Your task to perform on an android device: turn on notifications settings in the gmail app Image 0: 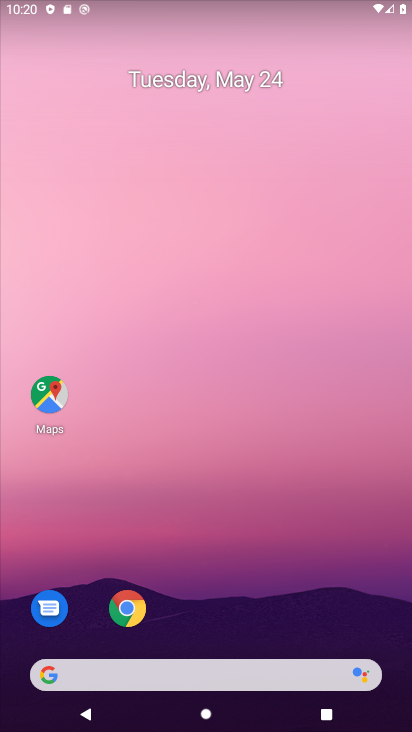
Step 0: drag from (376, 622) to (337, 7)
Your task to perform on an android device: turn on notifications settings in the gmail app Image 1: 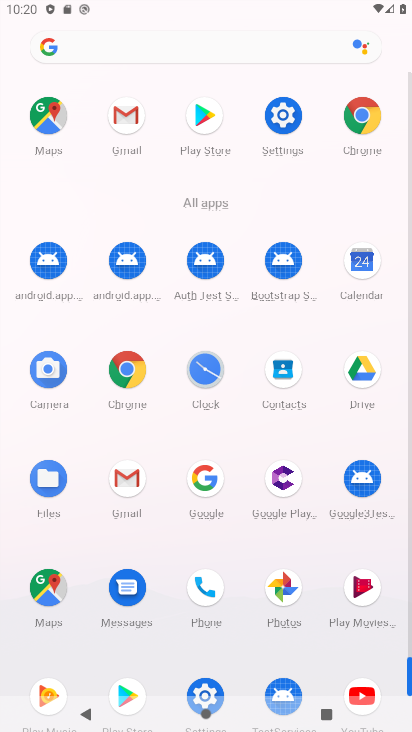
Step 1: click (410, 645)
Your task to perform on an android device: turn on notifications settings in the gmail app Image 2: 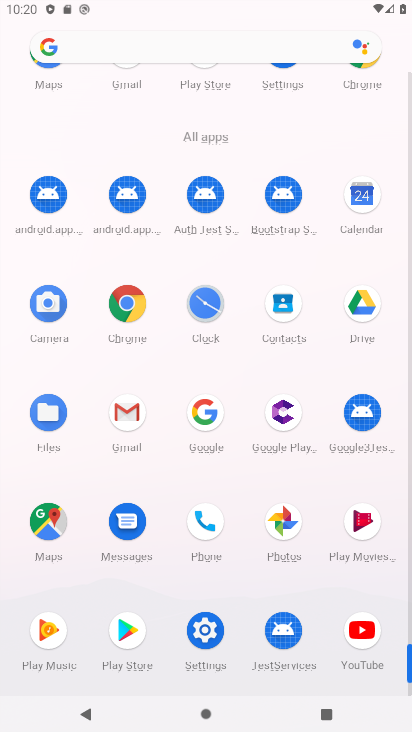
Step 2: click (123, 411)
Your task to perform on an android device: turn on notifications settings in the gmail app Image 3: 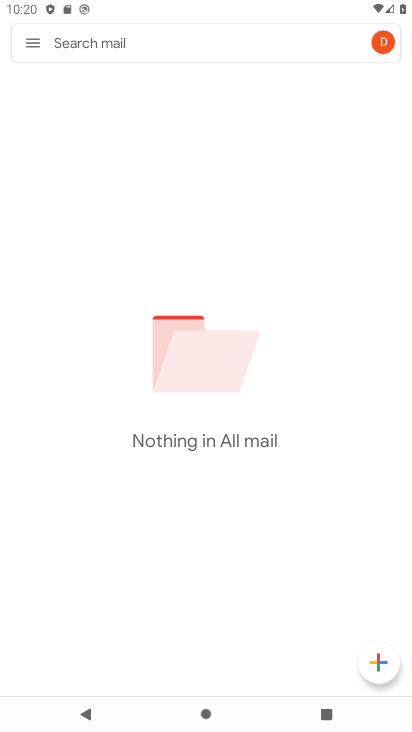
Step 3: click (31, 41)
Your task to perform on an android device: turn on notifications settings in the gmail app Image 4: 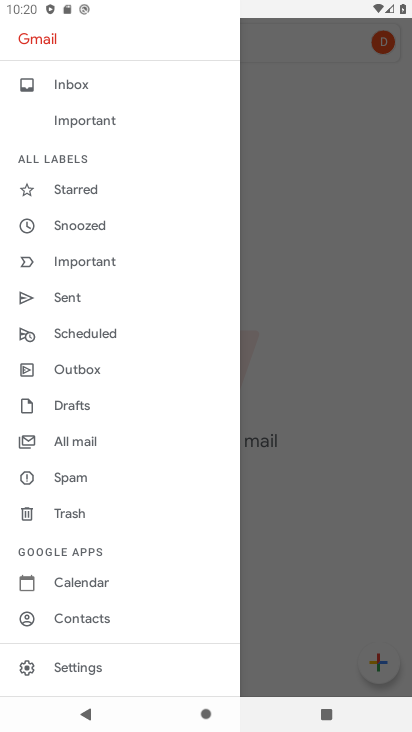
Step 4: click (79, 660)
Your task to perform on an android device: turn on notifications settings in the gmail app Image 5: 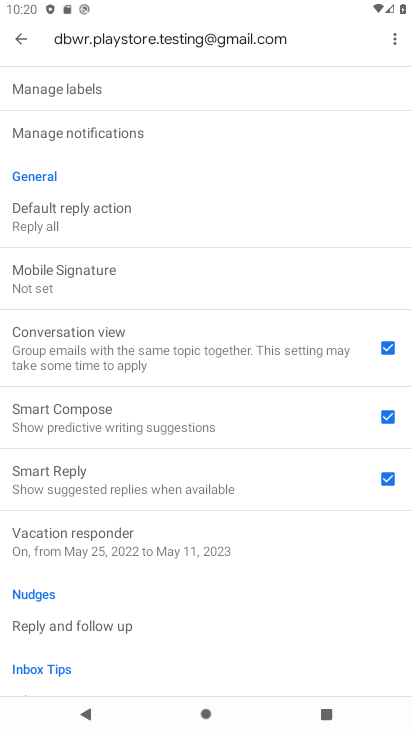
Step 5: click (88, 123)
Your task to perform on an android device: turn on notifications settings in the gmail app Image 6: 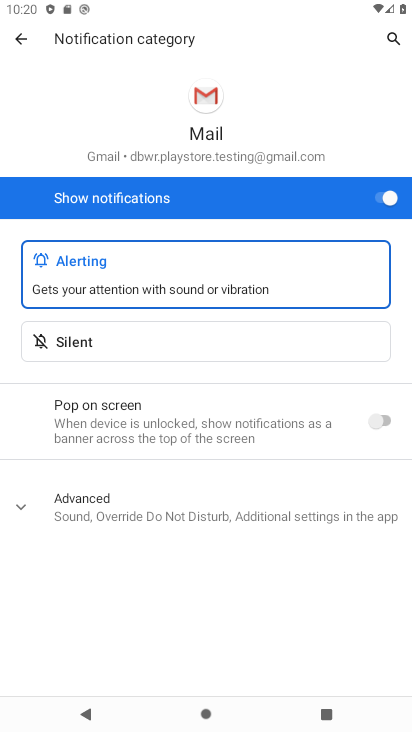
Step 6: task complete